Your task to perform on an android device: Go to calendar. Show me events next week Image 0: 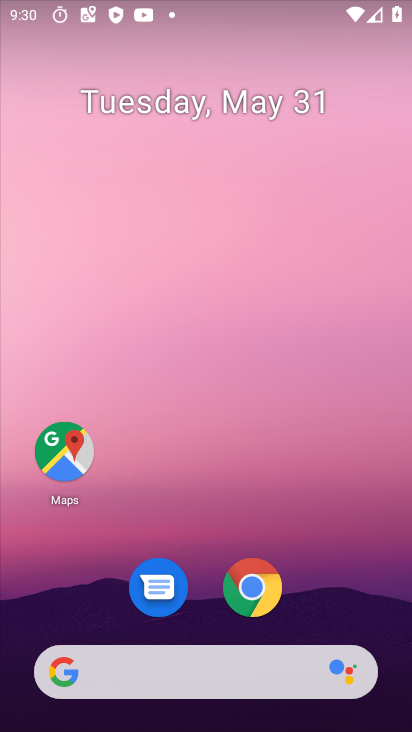
Step 0: drag from (337, 577) to (269, 39)
Your task to perform on an android device: Go to calendar. Show me events next week Image 1: 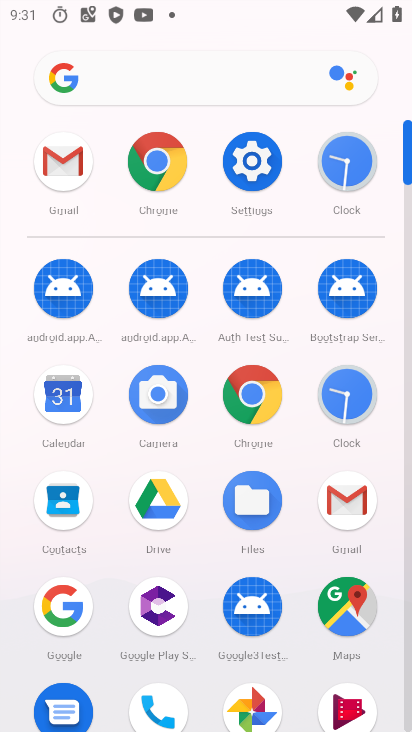
Step 1: click (55, 399)
Your task to perform on an android device: Go to calendar. Show me events next week Image 2: 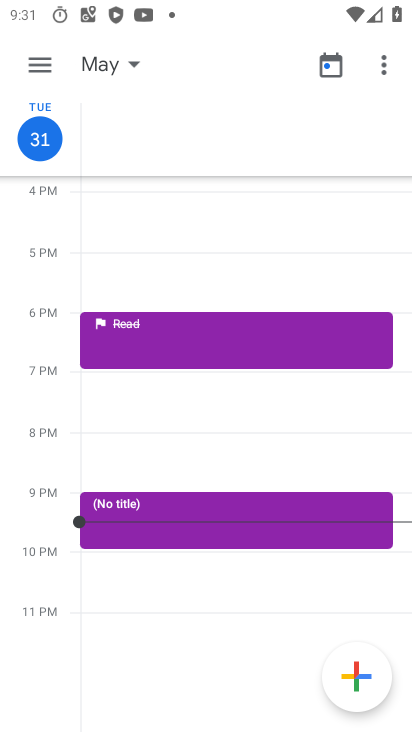
Step 2: click (127, 60)
Your task to perform on an android device: Go to calendar. Show me events next week Image 3: 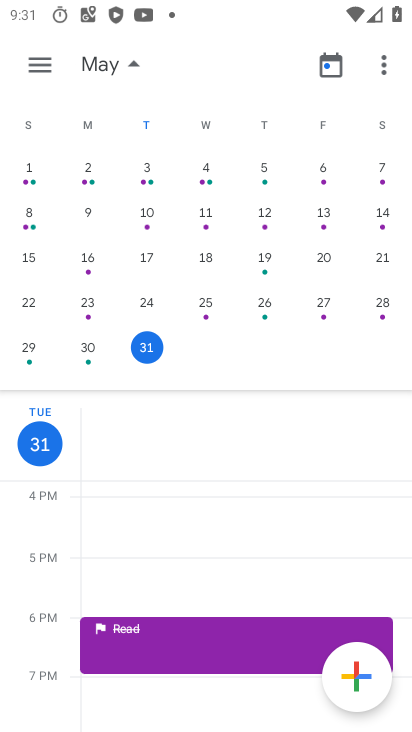
Step 3: drag from (374, 235) to (5, 195)
Your task to perform on an android device: Go to calendar. Show me events next week Image 4: 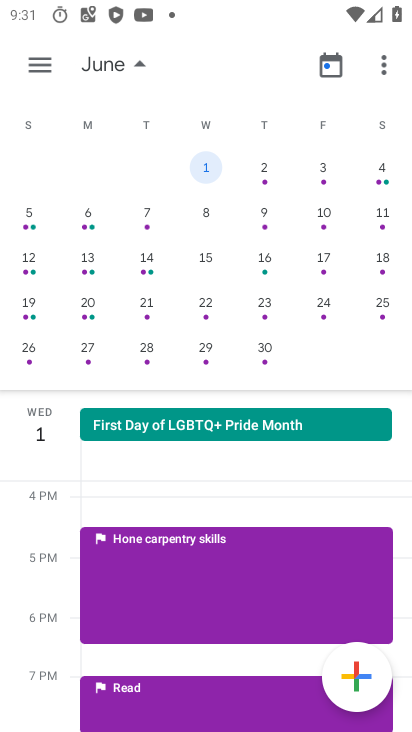
Step 4: click (267, 213)
Your task to perform on an android device: Go to calendar. Show me events next week Image 5: 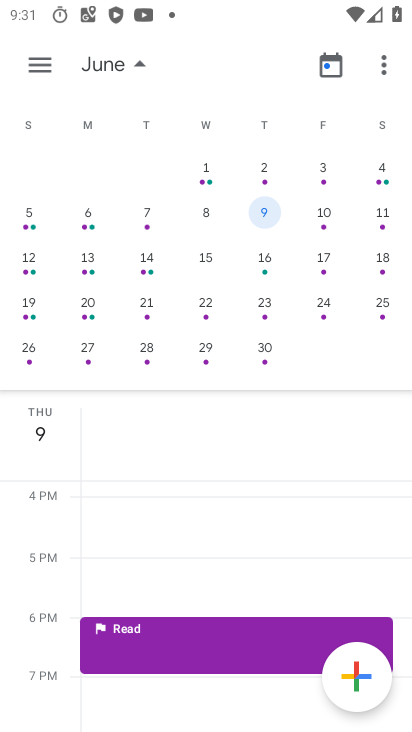
Step 5: drag from (205, 504) to (206, 325)
Your task to perform on an android device: Go to calendar. Show me events next week Image 6: 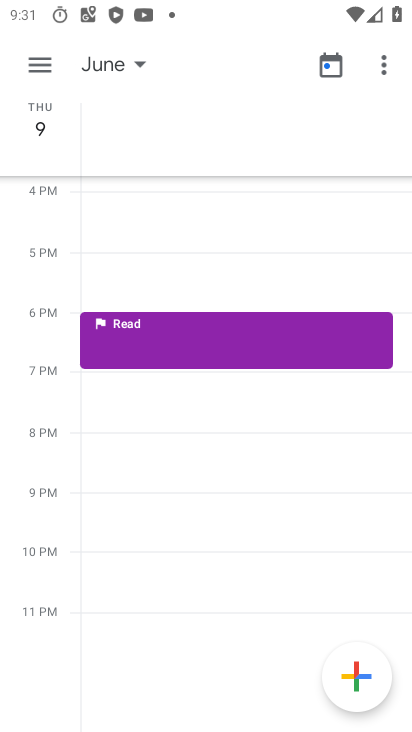
Step 6: drag from (174, 507) to (184, 368)
Your task to perform on an android device: Go to calendar. Show me events next week Image 7: 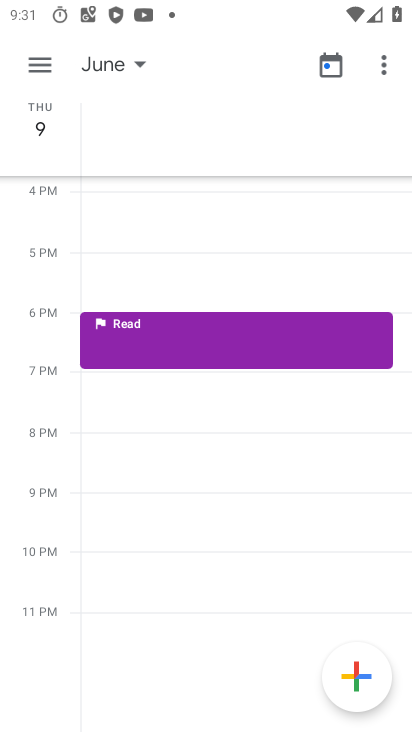
Step 7: drag from (233, 234) to (111, 437)
Your task to perform on an android device: Go to calendar. Show me events next week Image 8: 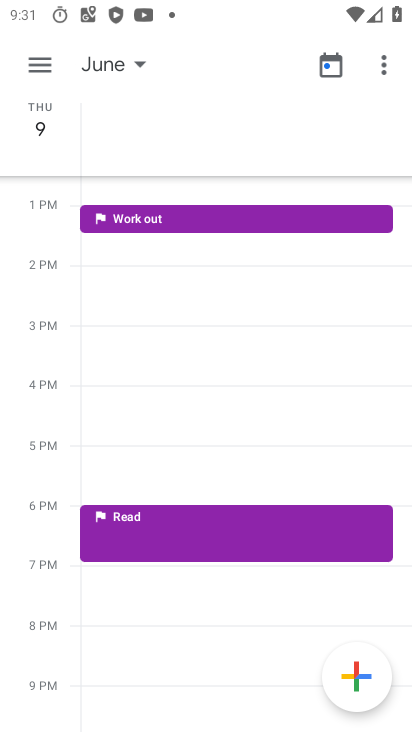
Step 8: drag from (198, 184) to (10, 540)
Your task to perform on an android device: Go to calendar. Show me events next week Image 9: 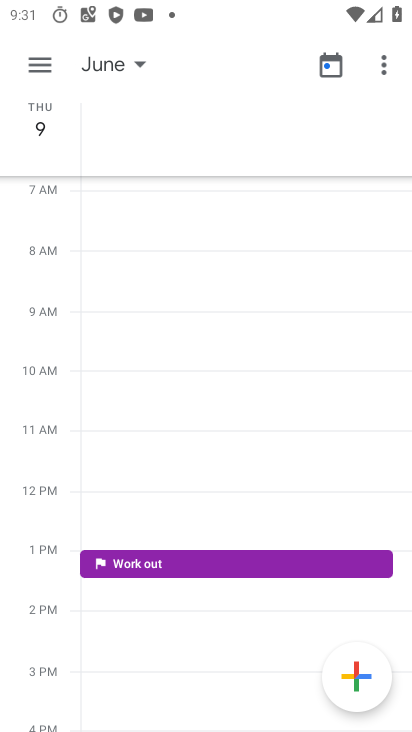
Step 9: drag from (153, 283) to (0, 334)
Your task to perform on an android device: Go to calendar. Show me events next week Image 10: 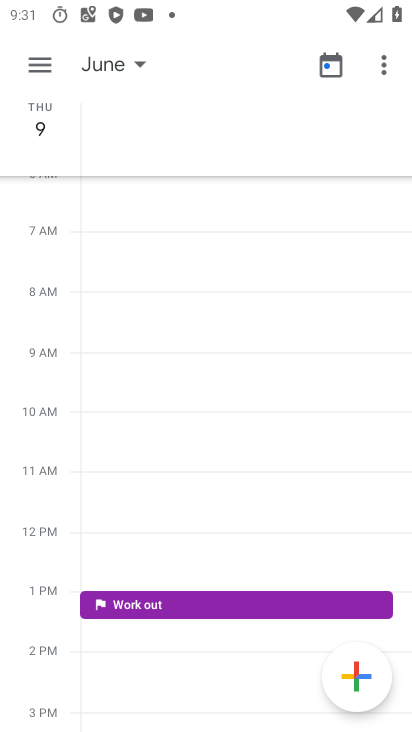
Step 10: drag from (160, 214) to (4, 313)
Your task to perform on an android device: Go to calendar. Show me events next week Image 11: 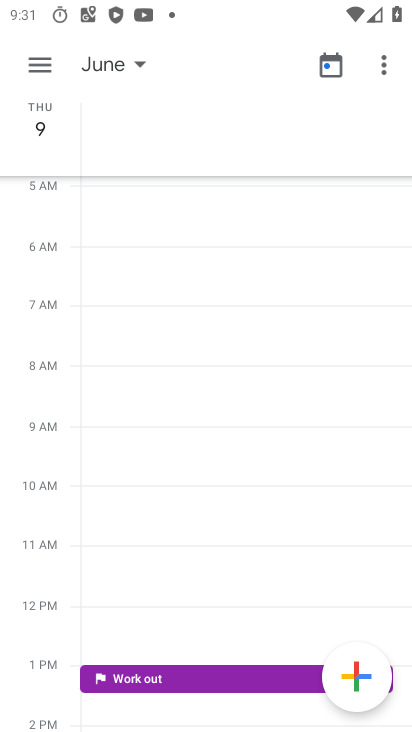
Step 11: drag from (154, 101) to (3, 517)
Your task to perform on an android device: Go to calendar. Show me events next week Image 12: 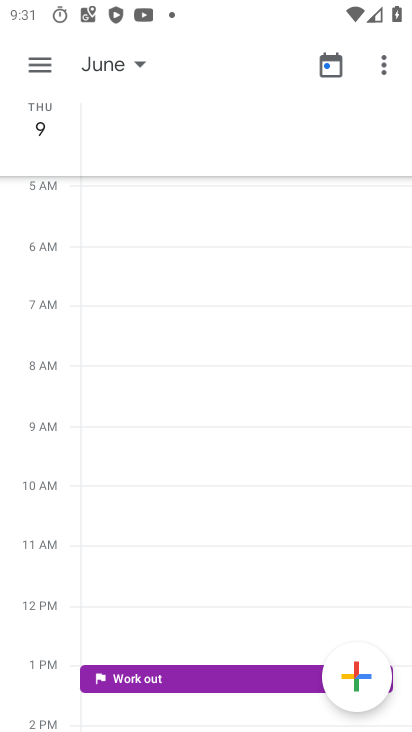
Step 12: drag from (158, 137) to (106, 542)
Your task to perform on an android device: Go to calendar. Show me events next week Image 13: 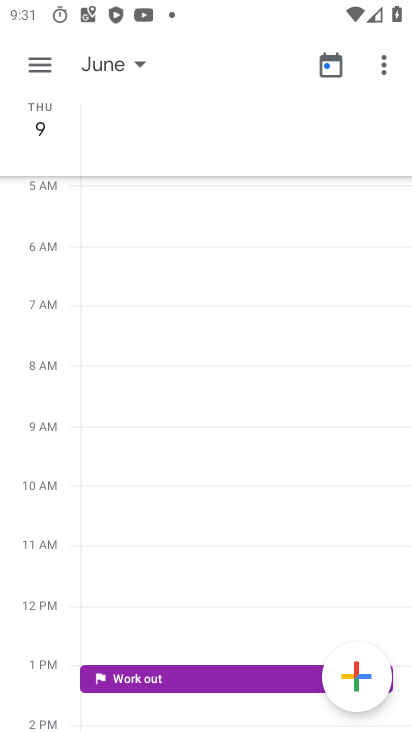
Step 13: click (114, 62)
Your task to perform on an android device: Go to calendar. Show me events next week Image 14: 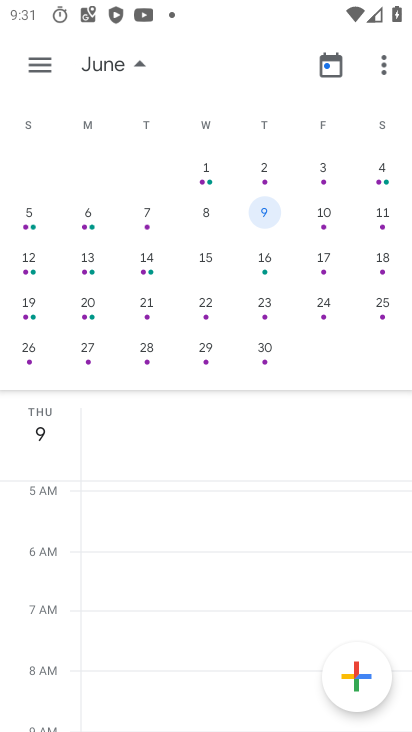
Step 14: click (85, 218)
Your task to perform on an android device: Go to calendar. Show me events next week Image 15: 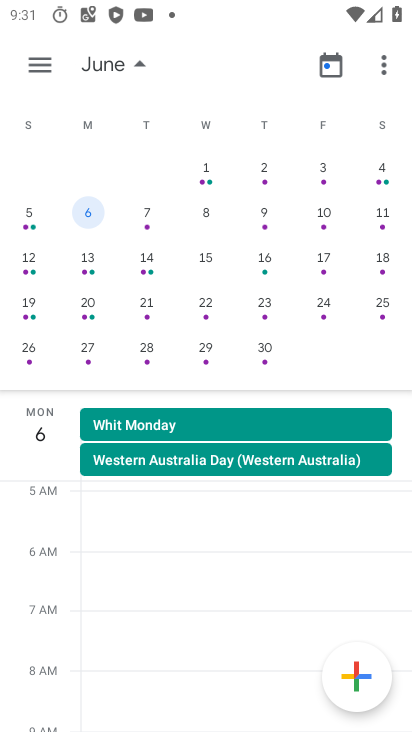
Step 15: task complete